Your task to perform on an android device: Go to internet settings Image 0: 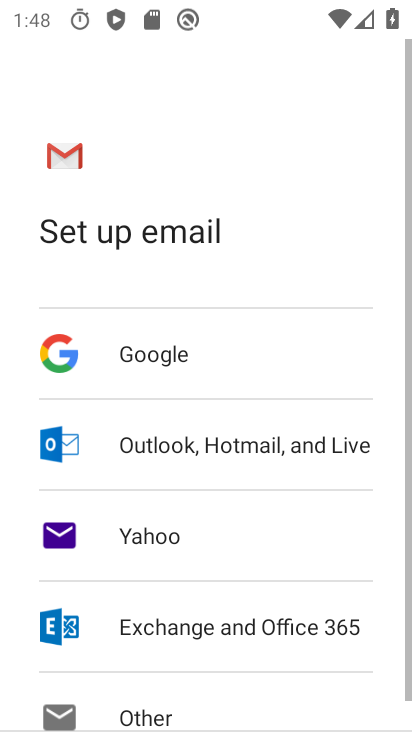
Step 0: press home button
Your task to perform on an android device: Go to internet settings Image 1: 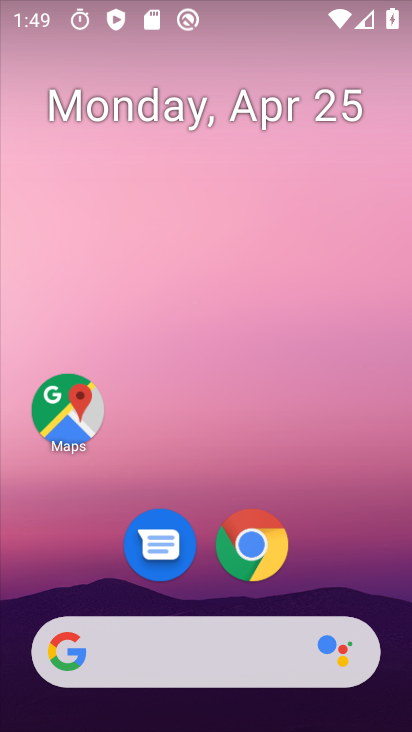
Step 1: drag from (322, 488) to (303, 44)
Your task to perform on an android device: Go to internet settings Image 2: 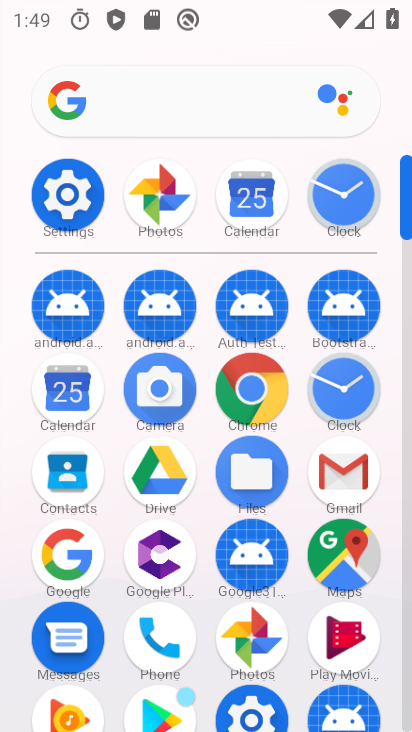
Step 2: click (67, 205)
Your task to perform on an android device: Go to internet settings Image 3: 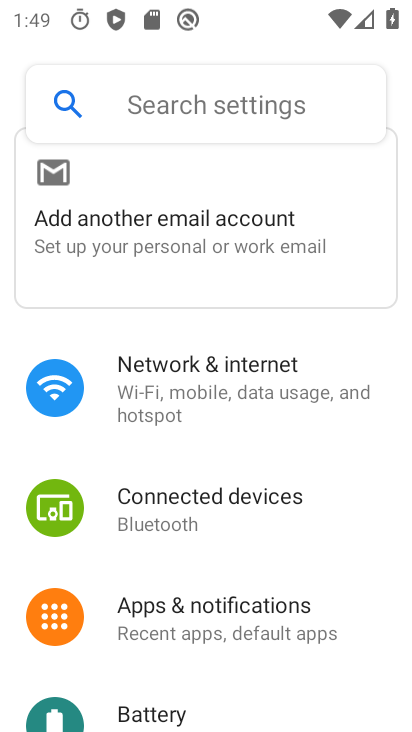
Step 3: click (180, 388)
Your task to perform on an android device: Go to internet settings Image 4: 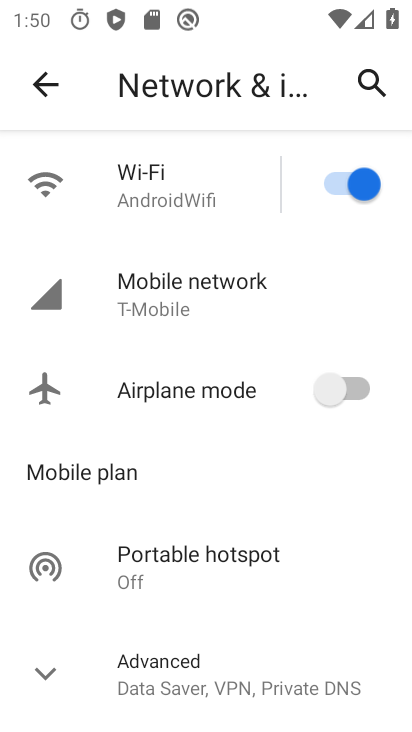
Step 4: task complete